Your task to perform on an android device: Open the Play Movies app and select the watchlist tab. Image 0: 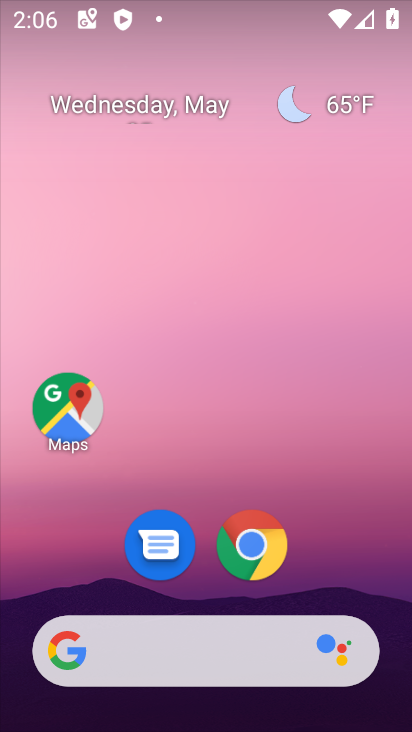
Step 0: drag from (352, 574) to (221, 34)
Your task to perform on an android device: Open the Play Movies app and select the watchlist tab. Image 1: 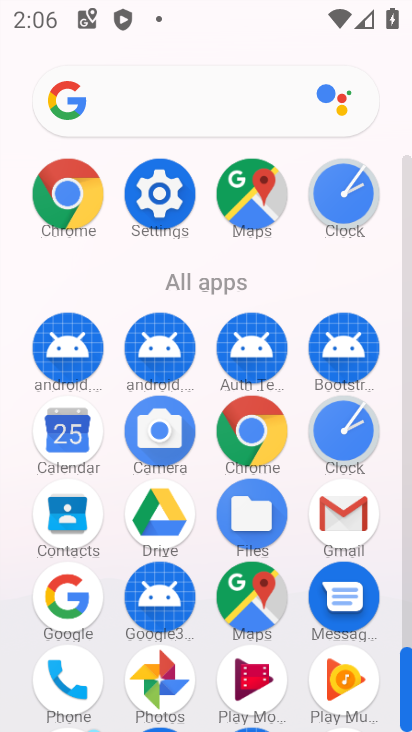
Step 1: click (248, 670)
Your task to perform on an android device: Open the Play Movies app and select the watchlist tab. Image 2: 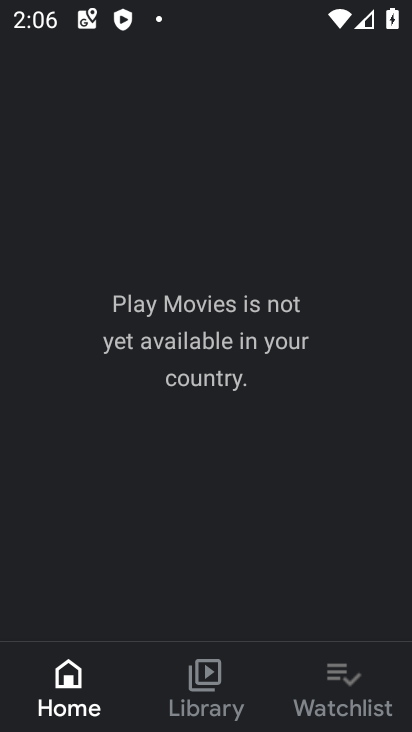
Step 2: click (359, 693)
Your task to perform on an android device: Open the Play Movies app and select the watchlist tab. Image 3: 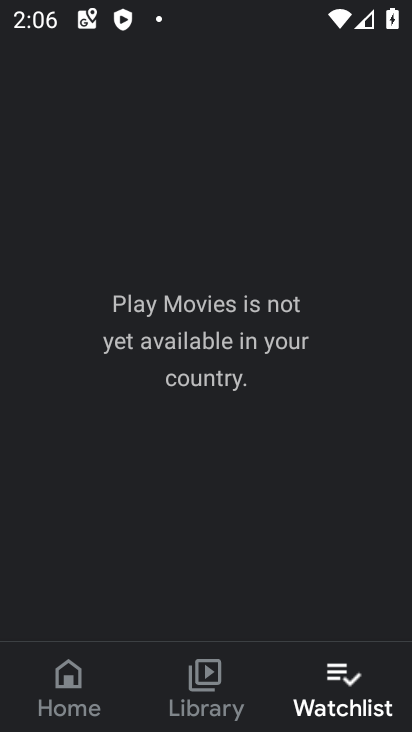
Step 3: task complete